Your task to perform on an android device: open app "Adobe Express: Graphic Design" Image 0: 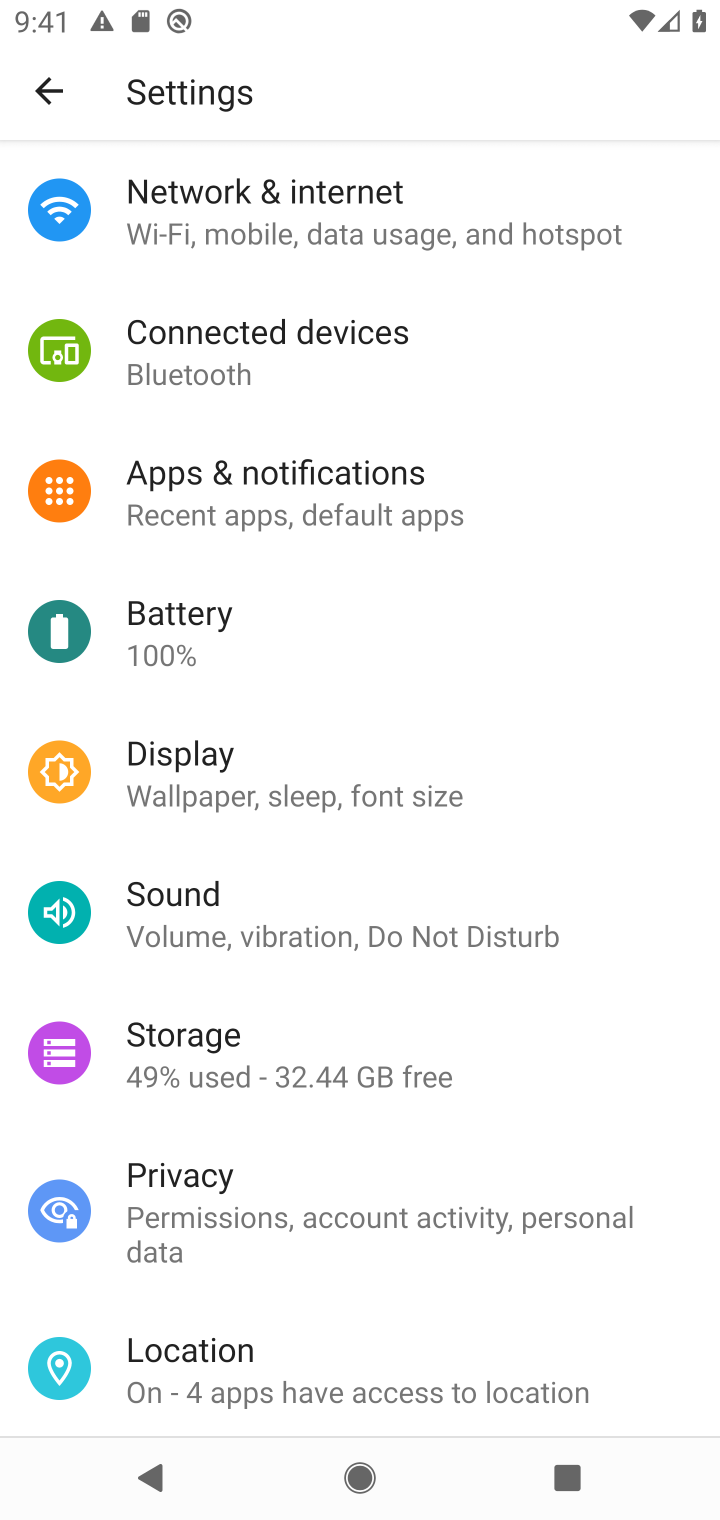
Step 0: press home button
Your task to perform on an android device: open app "Adobe Express: Graphic Design" Image 1: 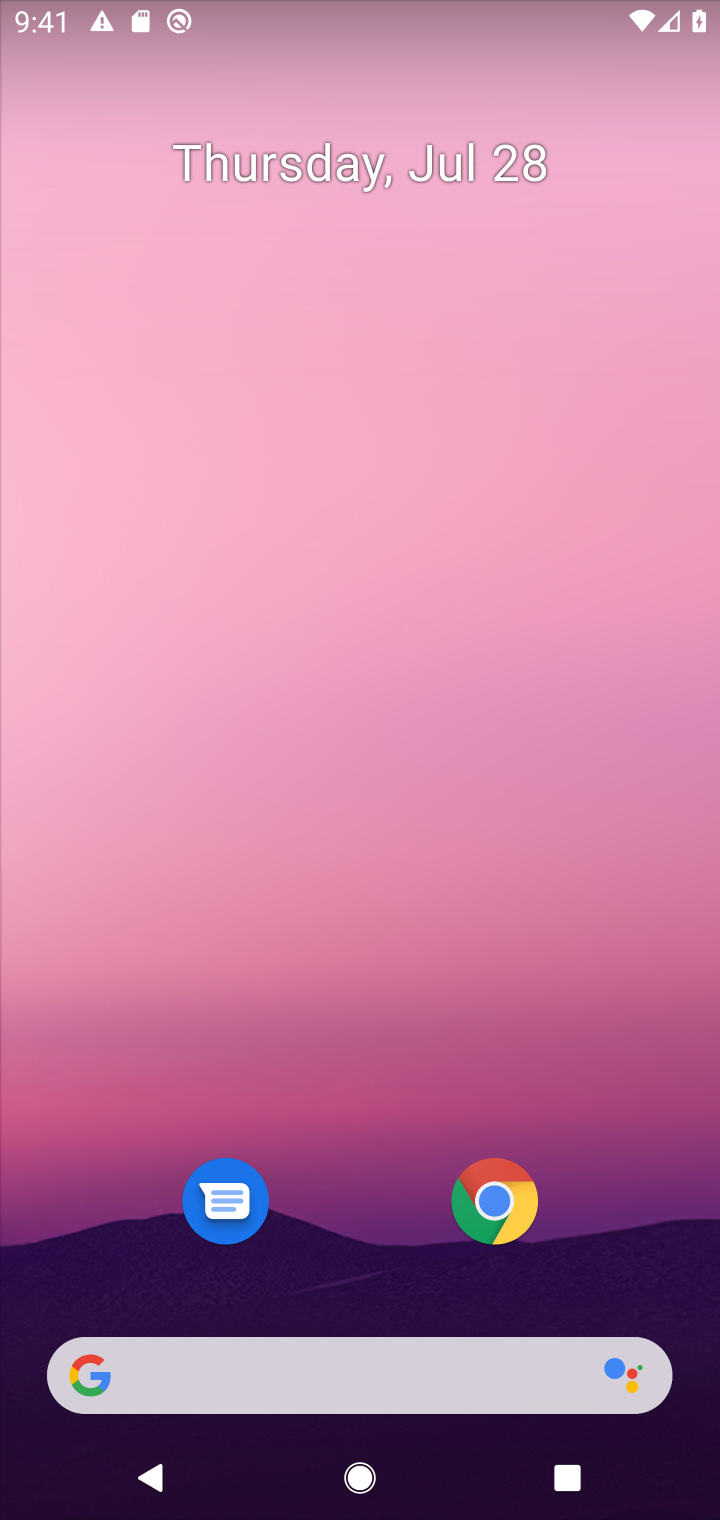
Step 1: drag from (346, 1131) to (194, 7)
Your task to perform on an android device: open app "Adobe Express: Graphic Design" Image 2: 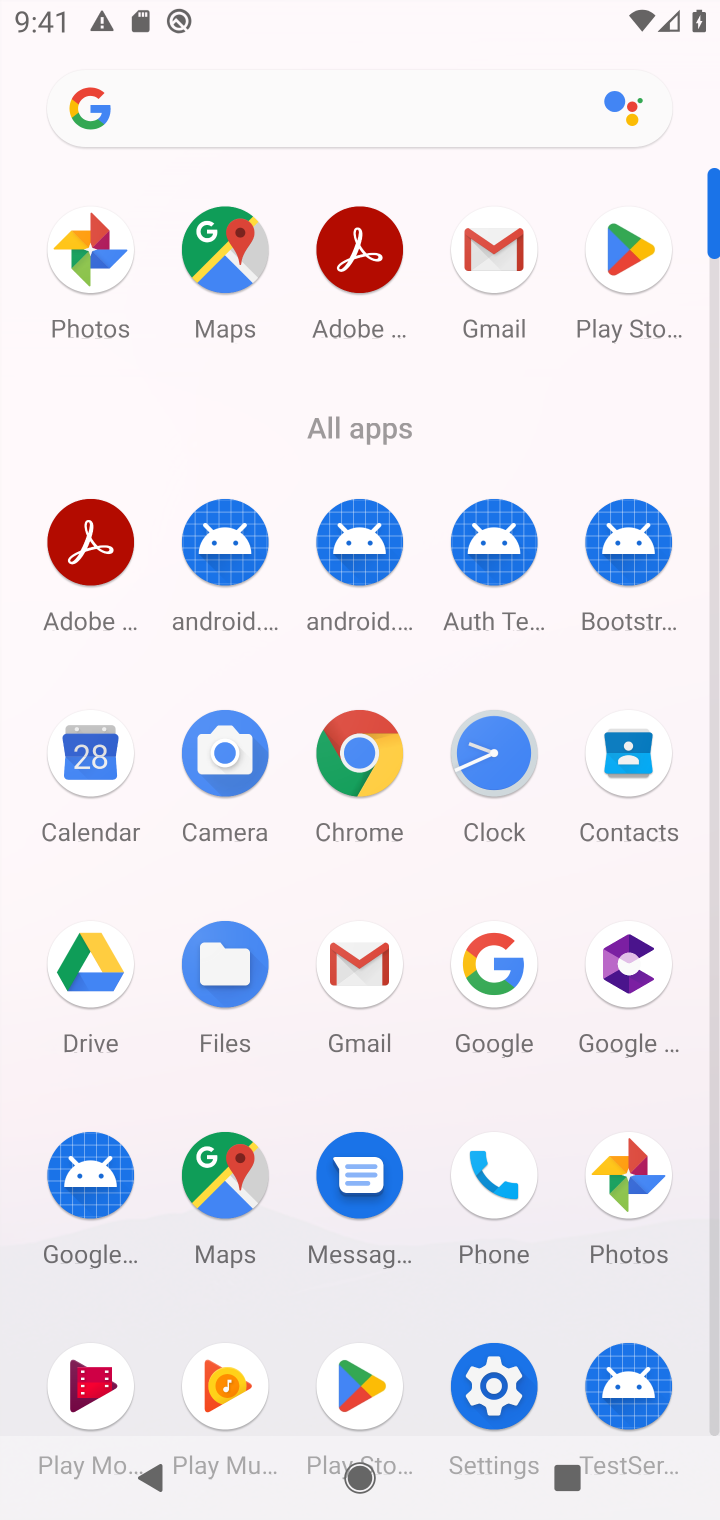
Step 2: click (351, 1362)
Your task to perform on an android device: open app "Adobe Express: Graphic Design" Image 3: 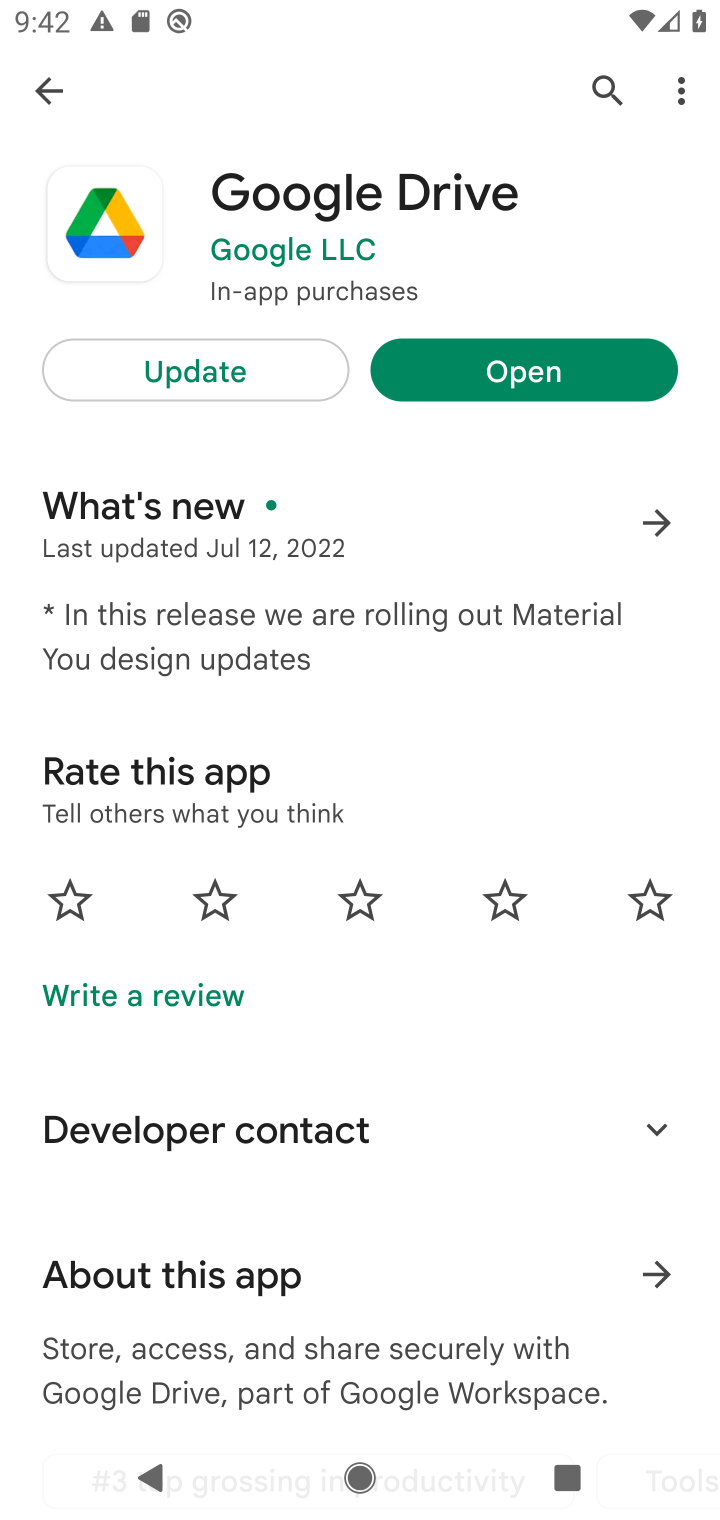
Step 3: click (33, 93)
Your task to perform on an android device: open app "Adobe Express: Graphic Design" Image 4: 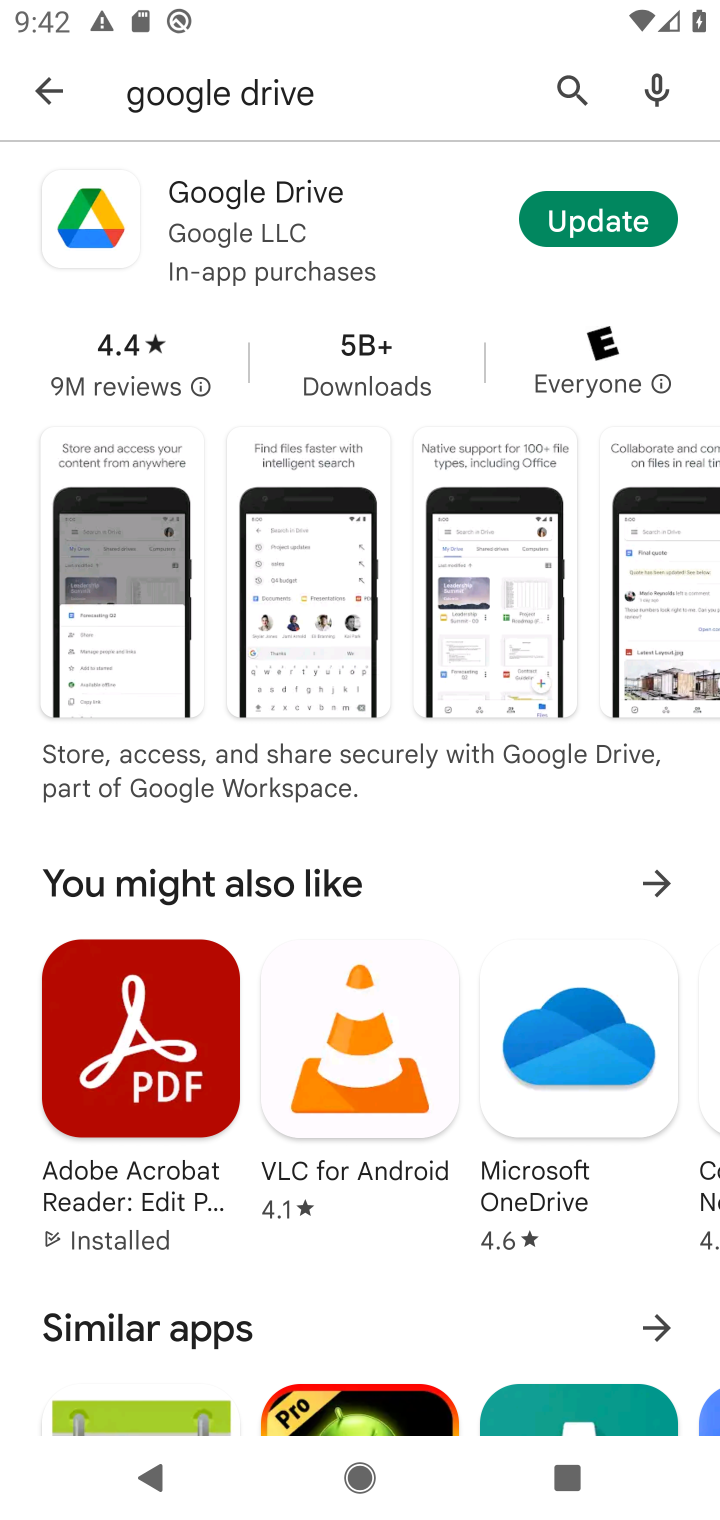
Step 4: click (257, 83)
Your task to perform on an android device: open app "Adobe Express: Graphic Design" Image 5: 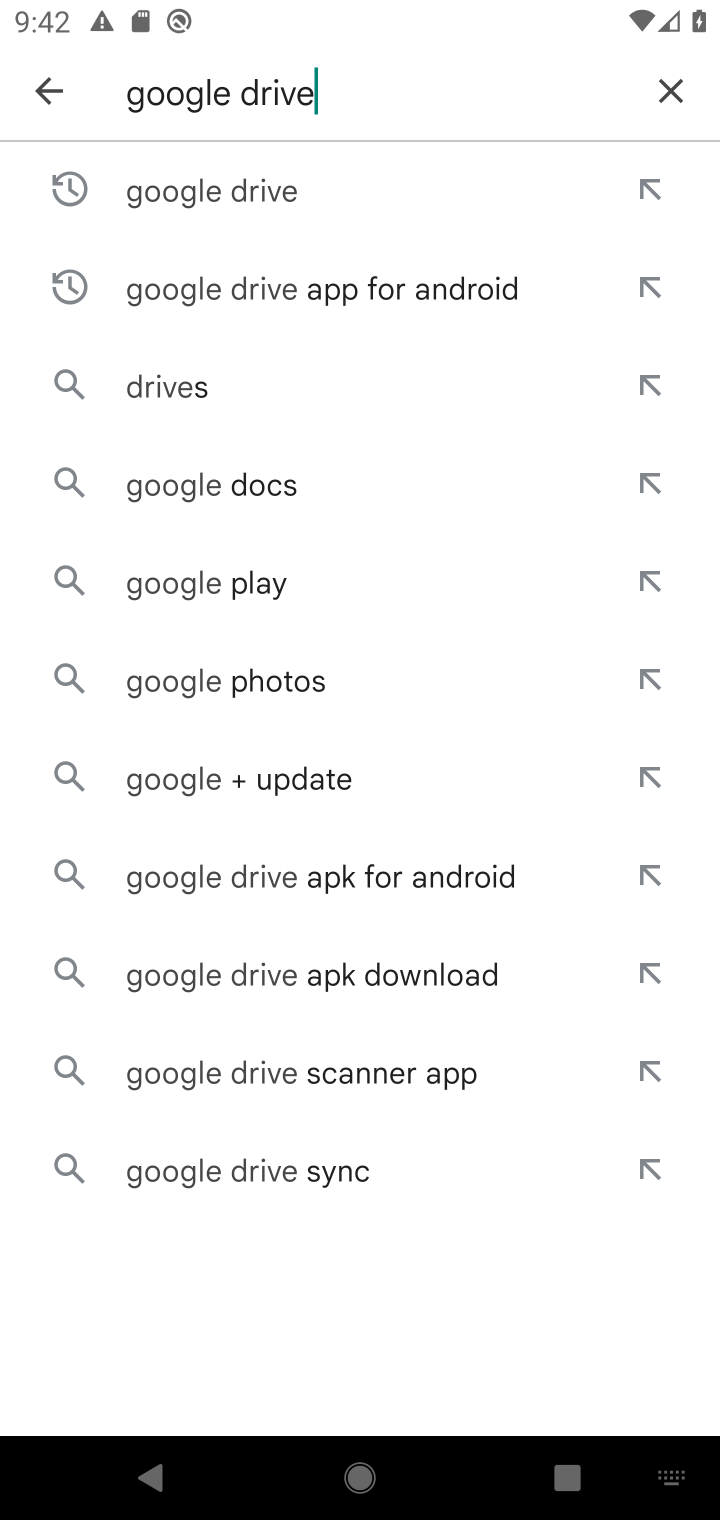
Step 5: click (661, 85)
Your task to perform on an android device: open app "Adobe Express: Graphic Design" Image 6: 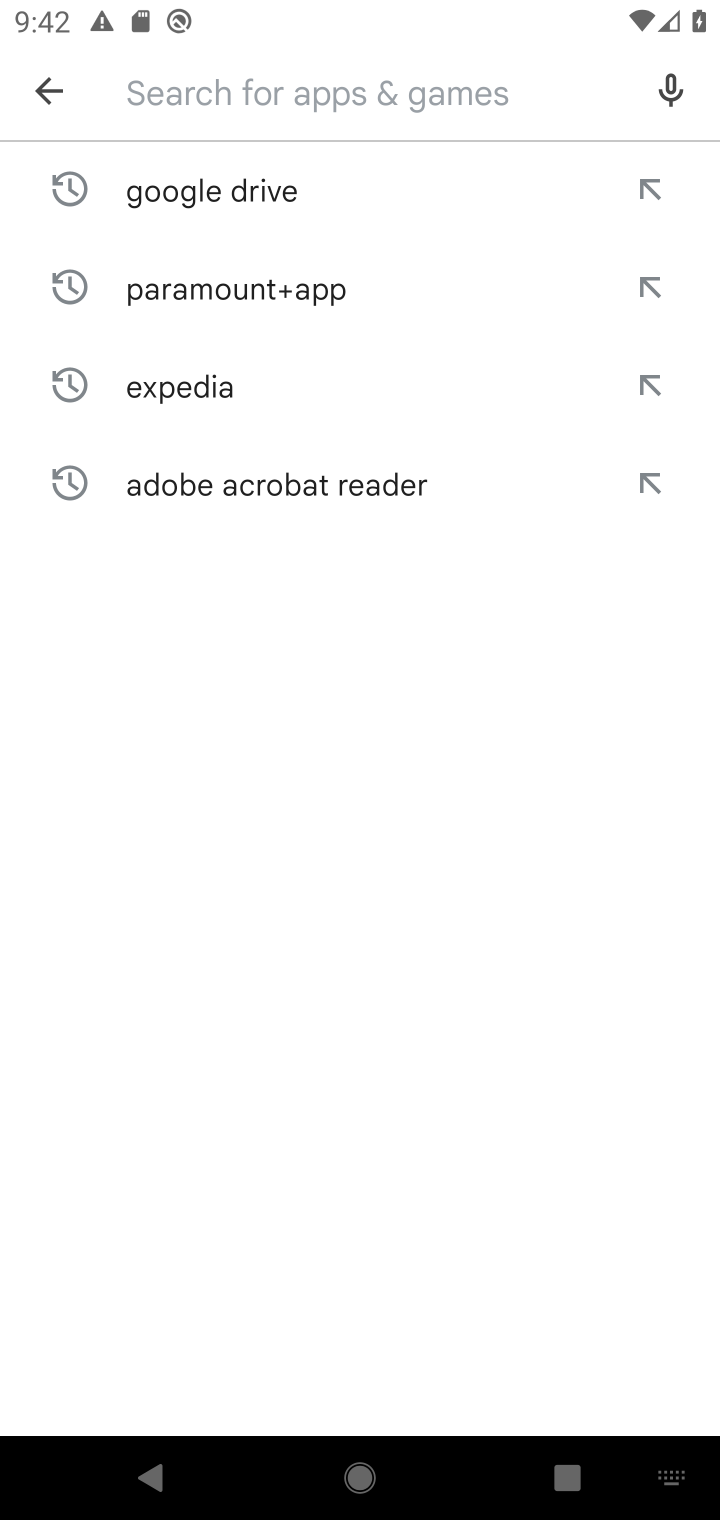
Step 6: type "Adobe Express"
Your task to perform on an android device: open app "Adobe Express: Graphic Design" Image 7: 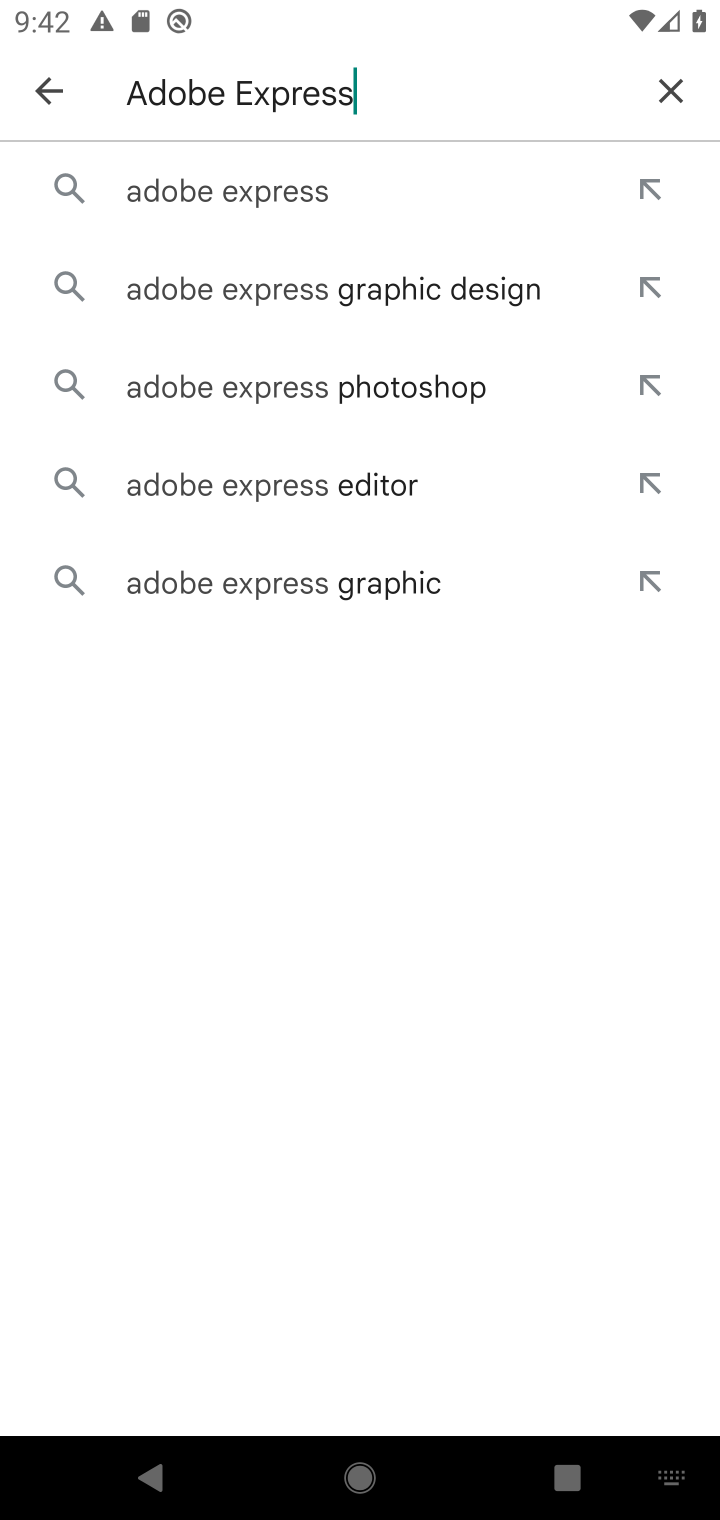
Step 7: click (264, 204)
Your task to perform on an android device: open app "Adobe Express: Graphic Design" Image 8: 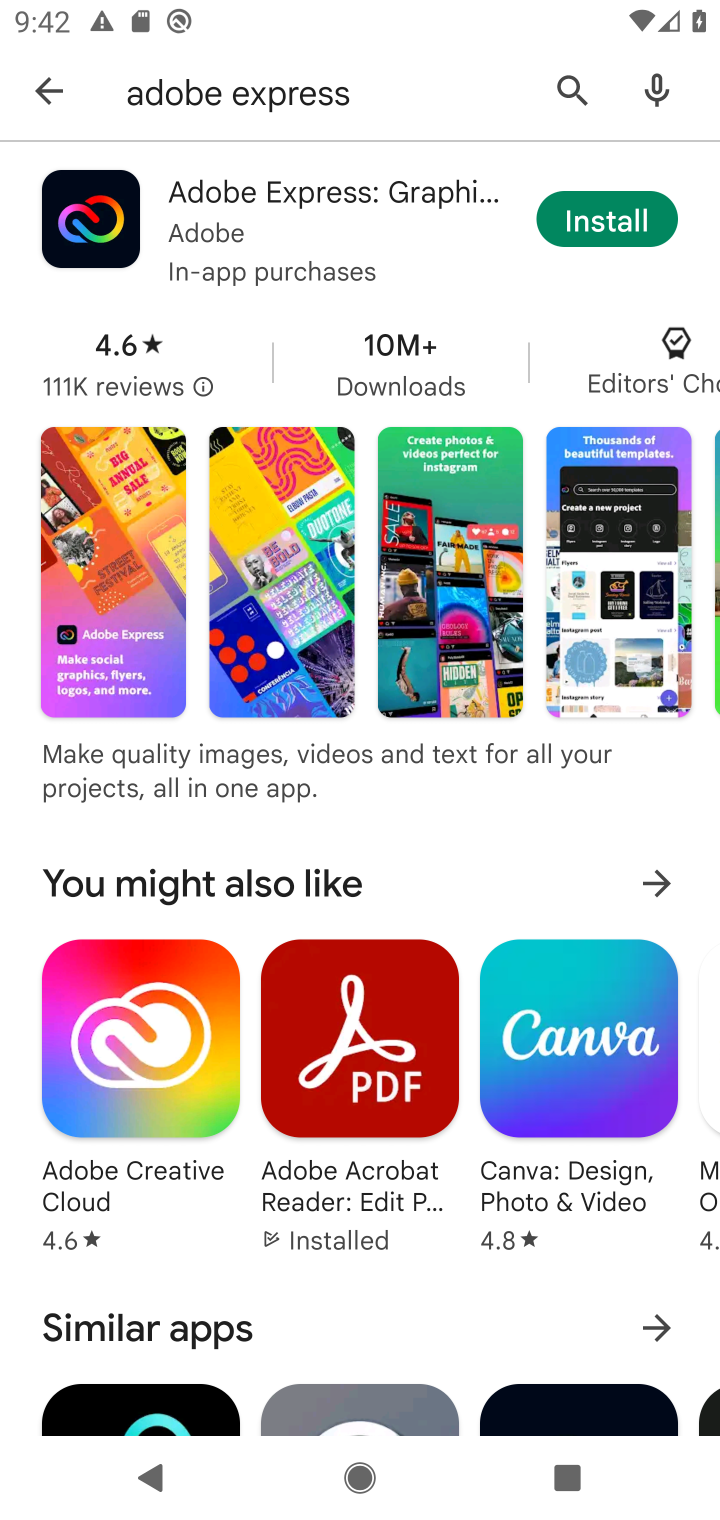
Step 8: task complete